Your task to perform on an android device: Open accessibility settings Image 0: 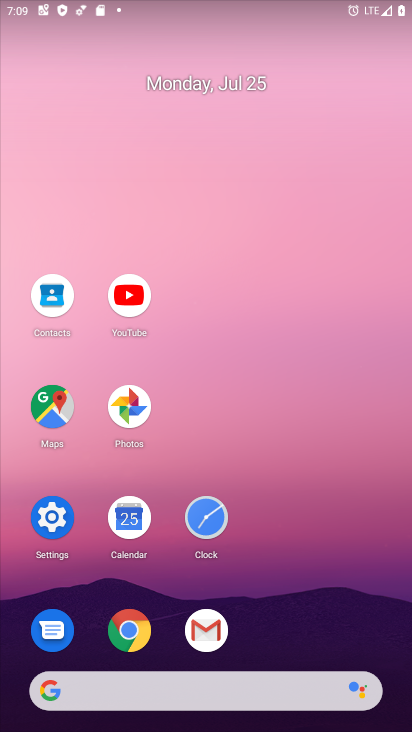
Step 0: click (50, 509)
Your task to perform on an android device: Open accessibility settings Image 1: 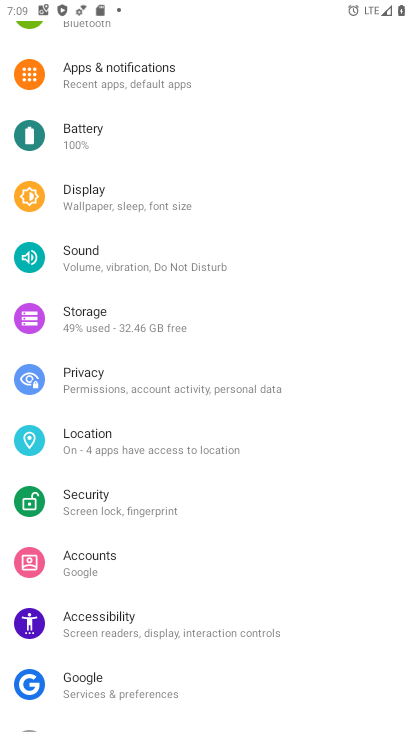
Step 1: click (91, 624)
Your task to perform on an android device: Open accessibility settings Image 2: 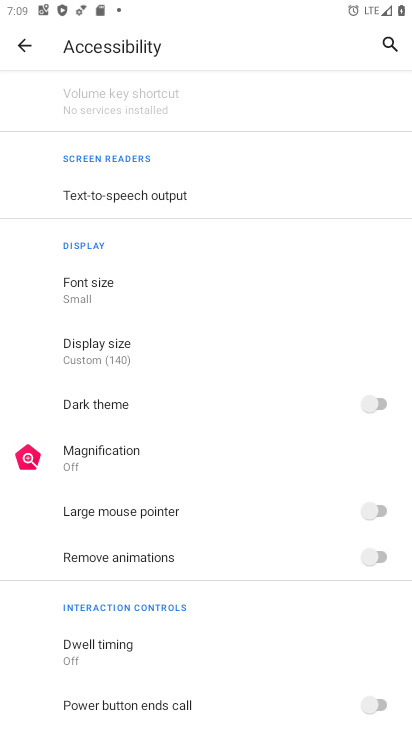
Step 2: task complete